Your task to perform on an android device: clear history in the chrome app Image 0: 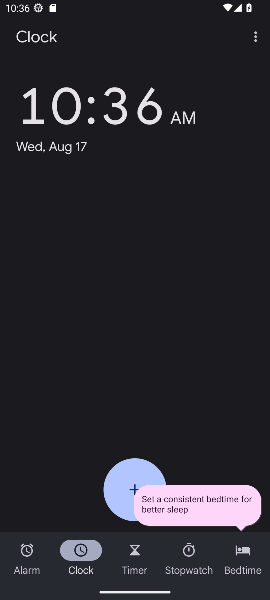
Step 0: press home button
Your task to perform on an android device: clear history in the chrome app Image 1: 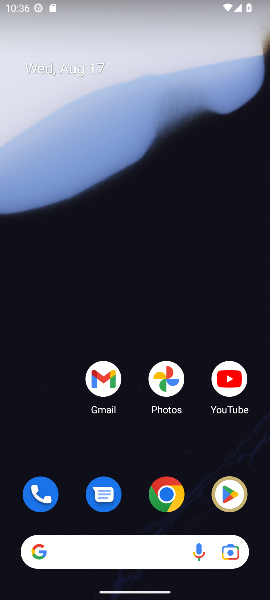
Step 1: click (166, 486)
Your task to perform on an android device: clear history in the chrome app Image 2: 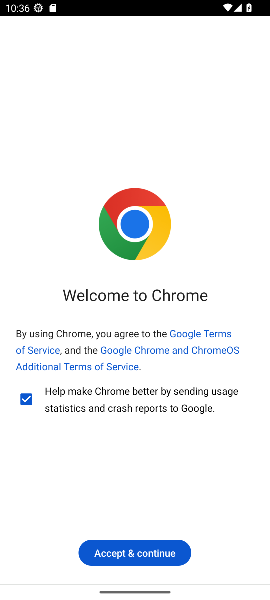
Step 2: click (134, 554)
Your task to perform on an android device: clear history in the chrome app Image 3: 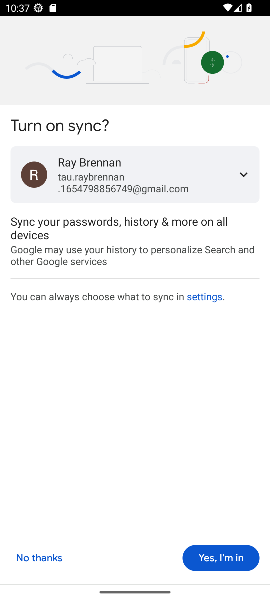
Step 3: click (212, 551)
Your task to perform on an android device: clear history in the chrome app Image 4: 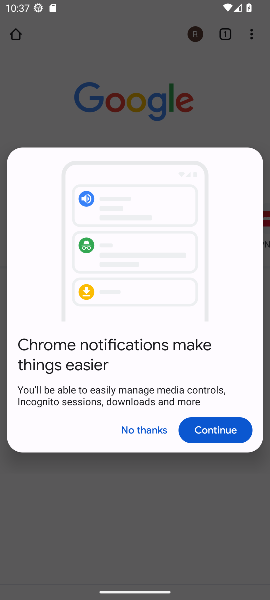
Step 4: click (204, 429)
Your task to perform on an android device: clear history in the chrome app Image 5: 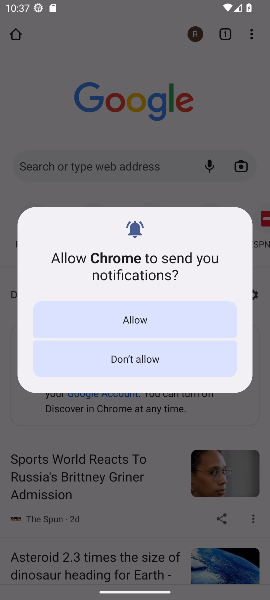
Step 5: click (186, 314)
Your task to perform on an android device: clear history in the chrome app Image 6: 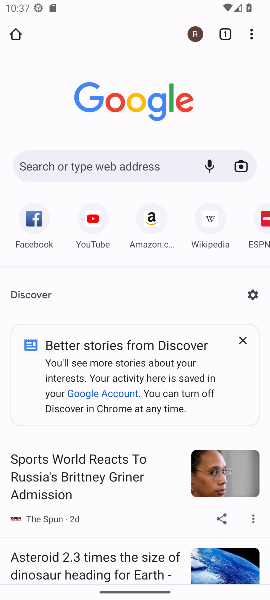
Step 6: click (257, 34)
Your task to perform on an android device: clear history in the chrome app Image 7: 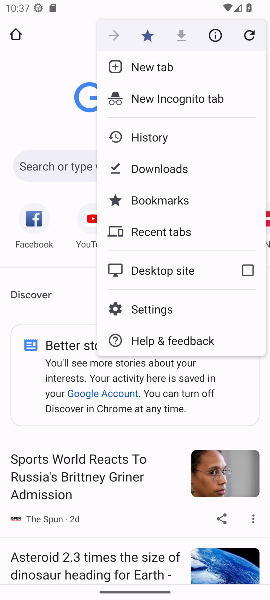
Step 7: click (152, 131)
Your task to perform on an android device: clear history in the chrome app Image 8: 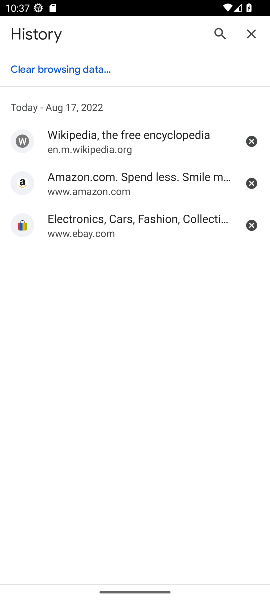
Step 8: click (94, 72)
Your task to perform on an android device: clear history in the chrome app Image 9: 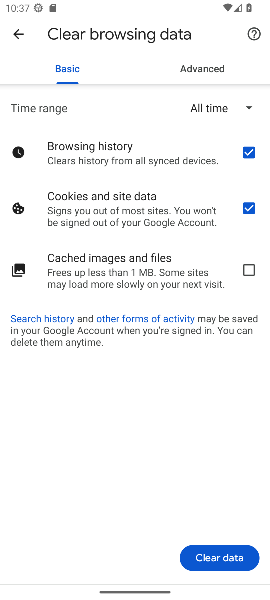
Step 9: click (236, 270)
Your task to perform on an android device: clear history in the chrome app Image 10: 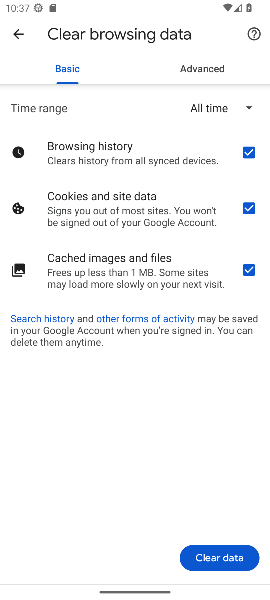
Step 10: click (226, 547)
Your task to perform on an android device: clear history in the chrome app Image 11: 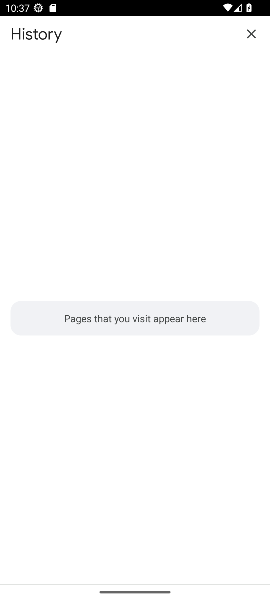
Step 11: task complete